Your task to perform on an android device: Search for "bose quietcomfort 35" on newegg, select the first entry, add it to the cart, then select checkout. Image 0: 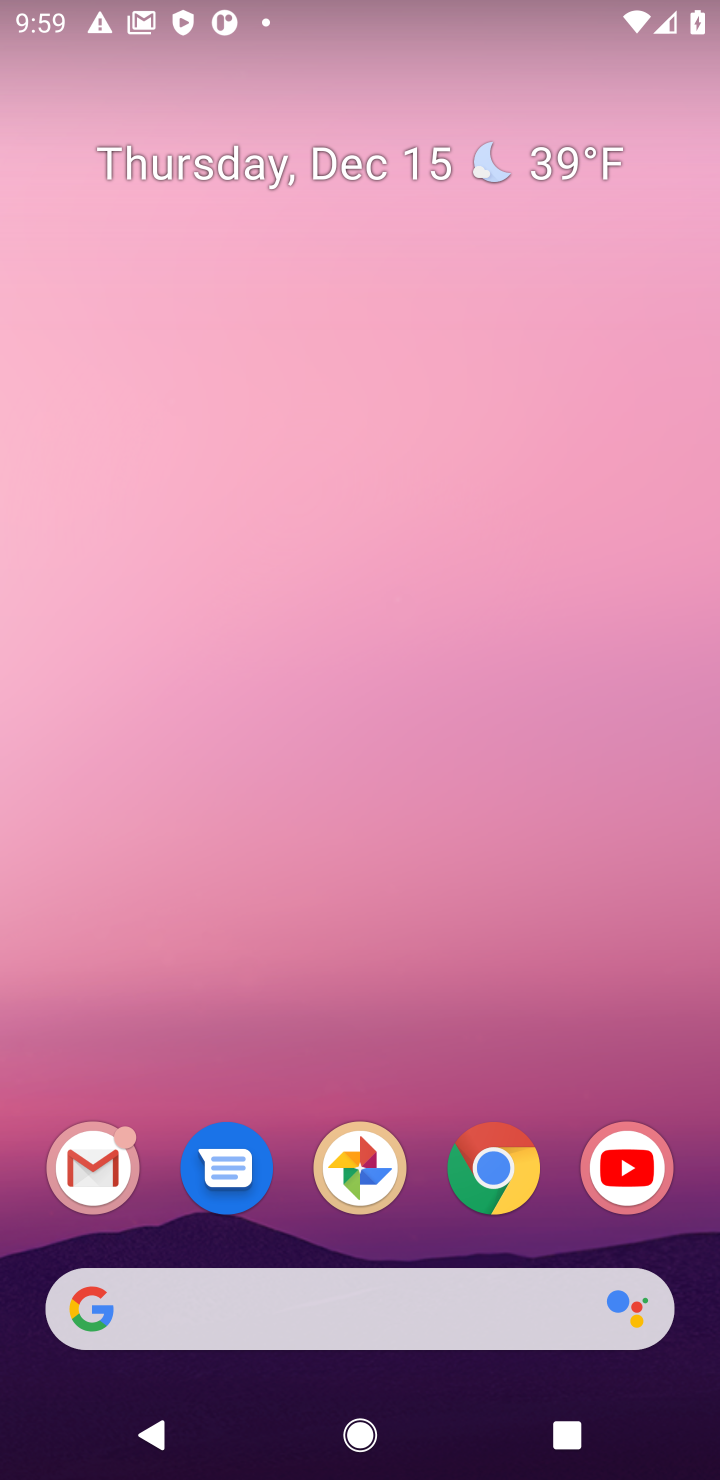
Step 0: click (483, 1160)
Your task to perform on an android device: Search for "bose quietcomfort 35" on newegg, select the first entry, add it to the cart, then select checkout. Image 1: 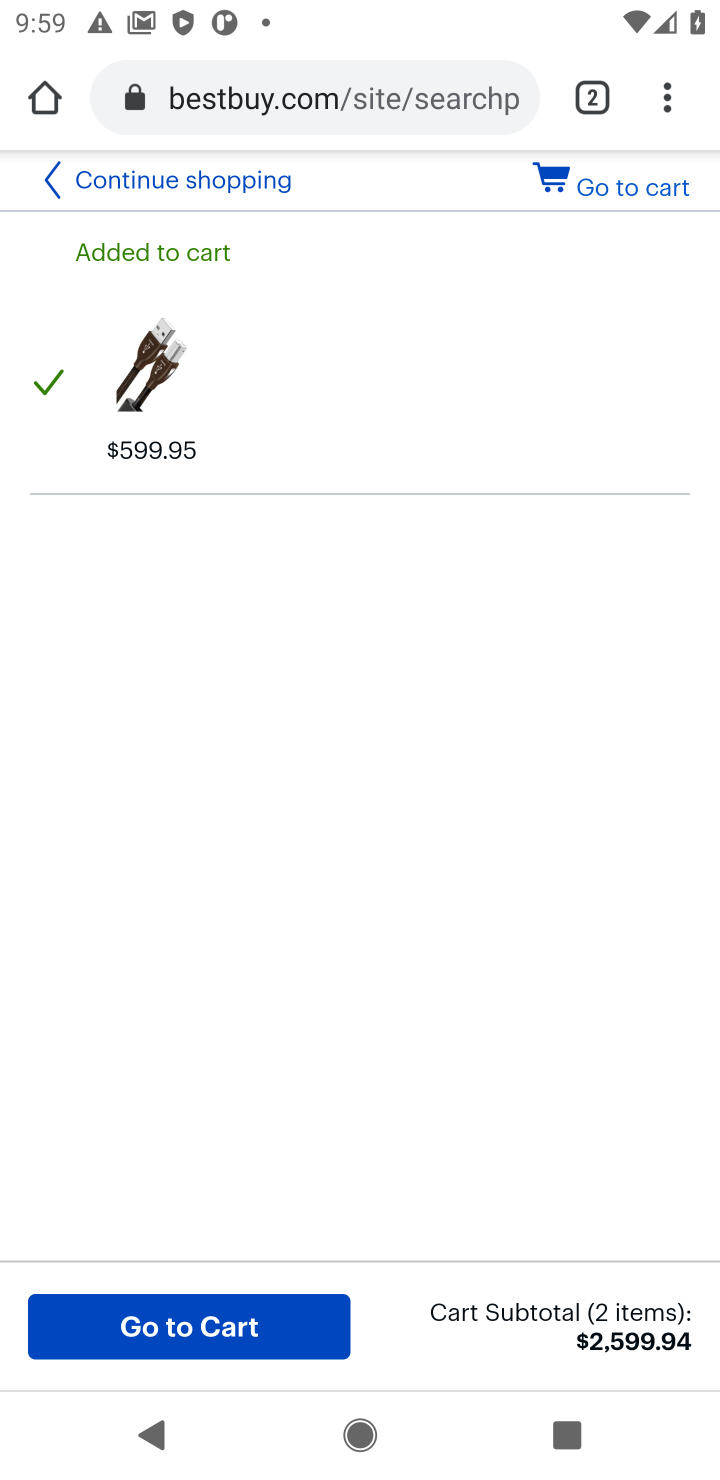
Step 1: click (399, 98)
Your task to perform on an android device: Search for "bose quietcomfort 35" on newegg, select the first entry, add it to the cart, then select checkout. Image 2: 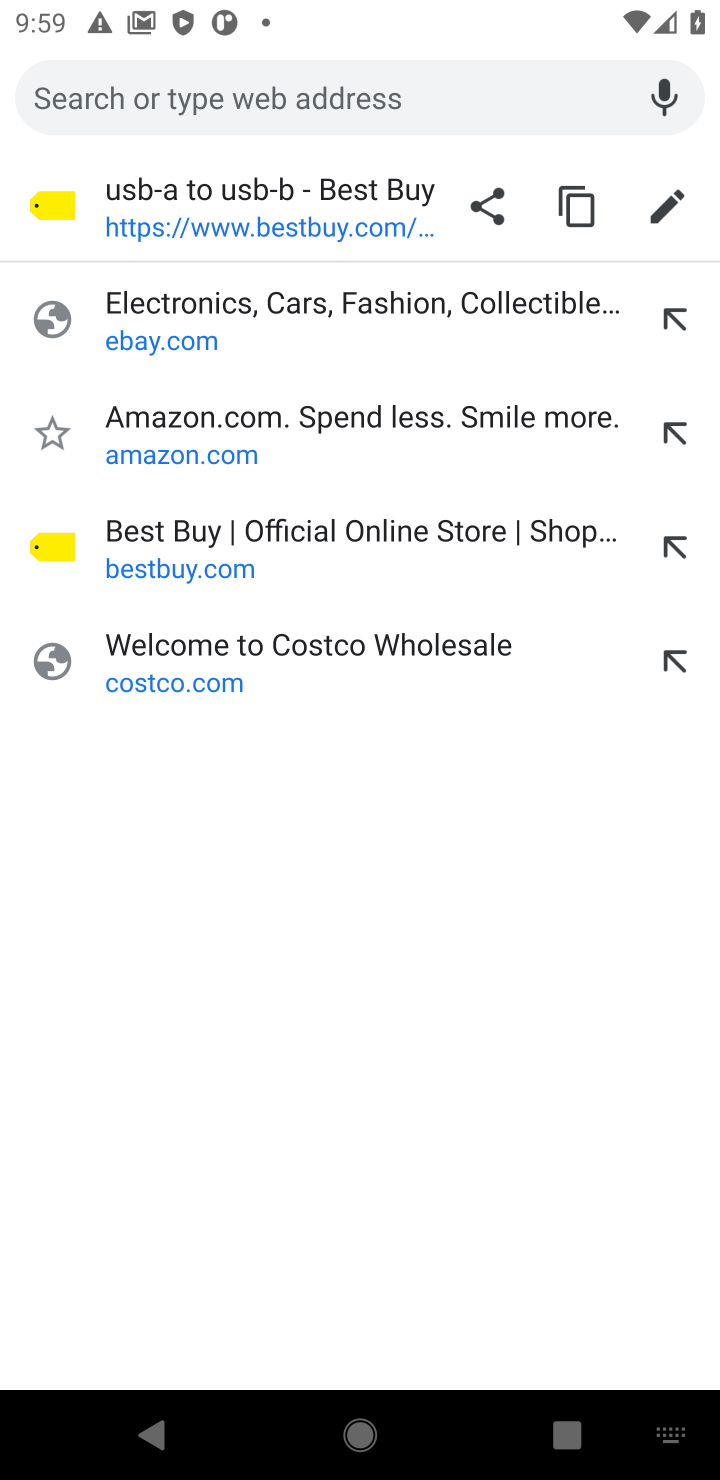
Step 2: type "newegg"
Your task to perform on an android device: Search for "bose quietcomfort 35" on newegg, select the first entry, add it to the cart, then select checkout. Image 3: 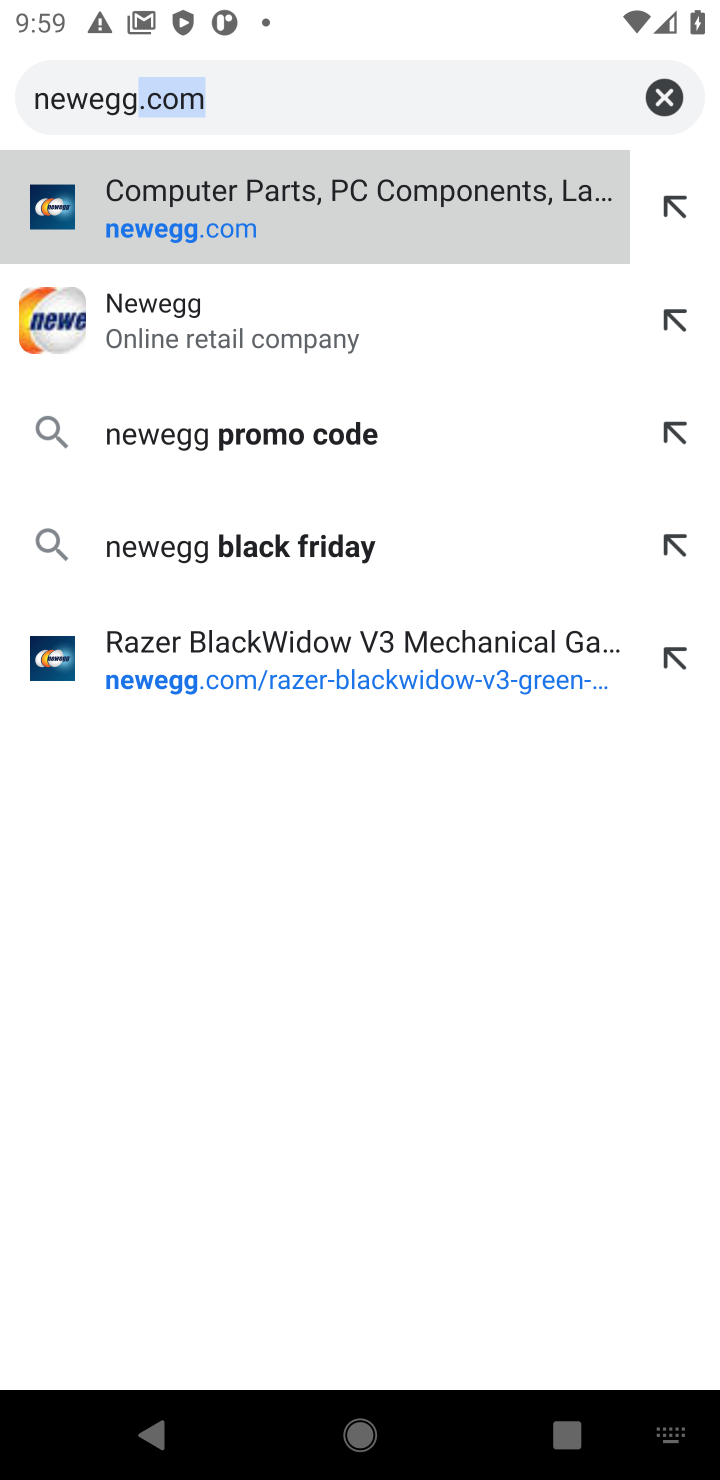
Step 3: click (389, 233)
Your task to perform on an android device: Search for "bose quietcomfort 35" on newegg, select the first entry, add it to the cart, then select checkout. Image 4: 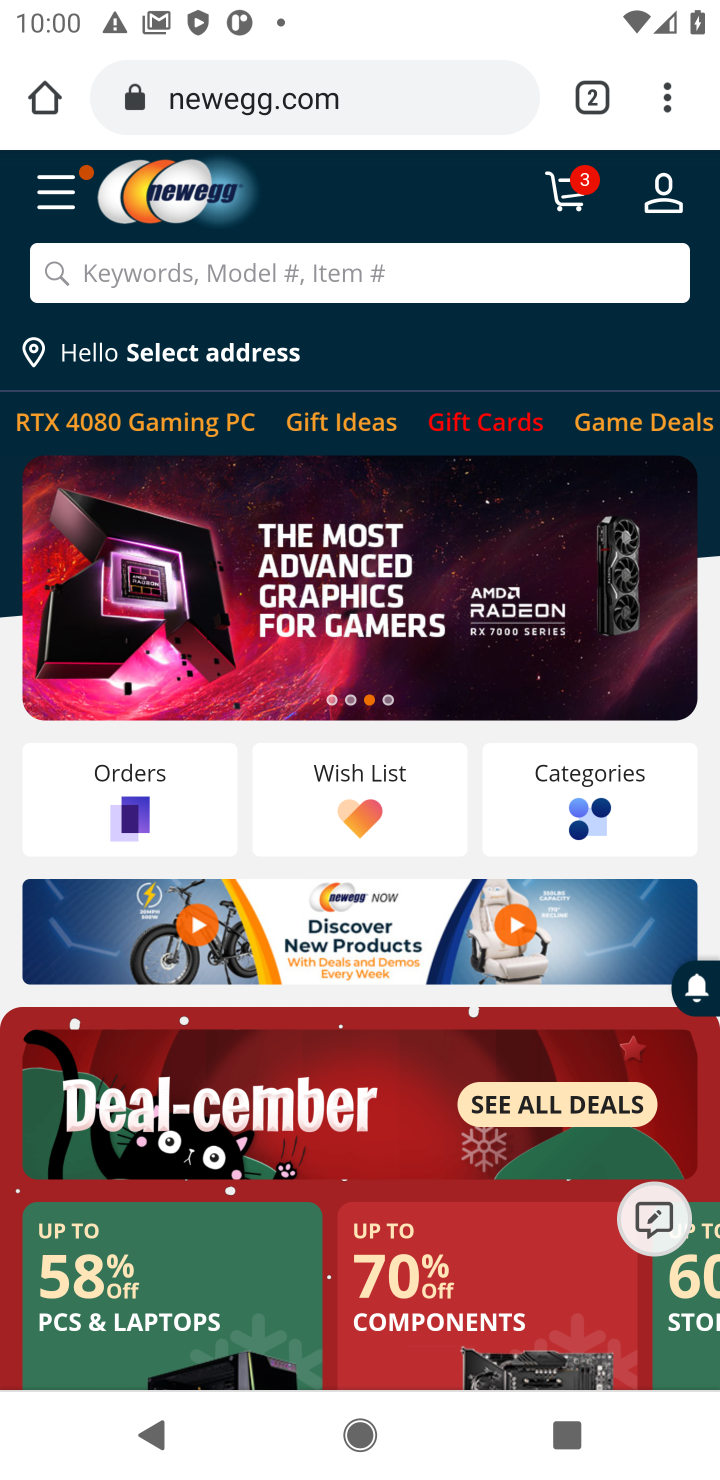
Step 4: click (261, 286)
Your task to perform on an android device: Search for "bose quietcomfort 35" on newegg, select the first entry, add it to the cart, then select checkout. Image 5: 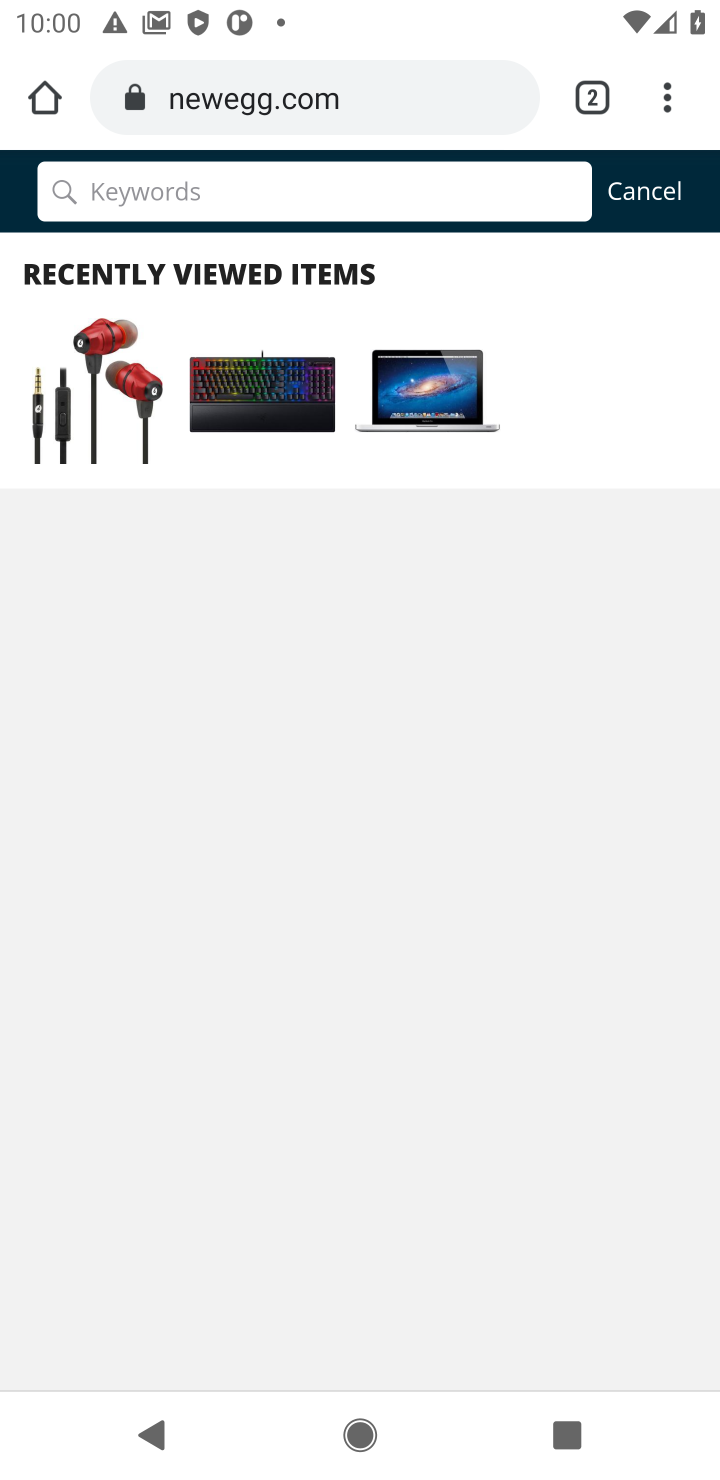
Step 5: type ""
Your task to perform on an android device: Search for "bose quietcomfort 35" on newegg, select the first entry, add it to the cart, then select checkout. Image 6: 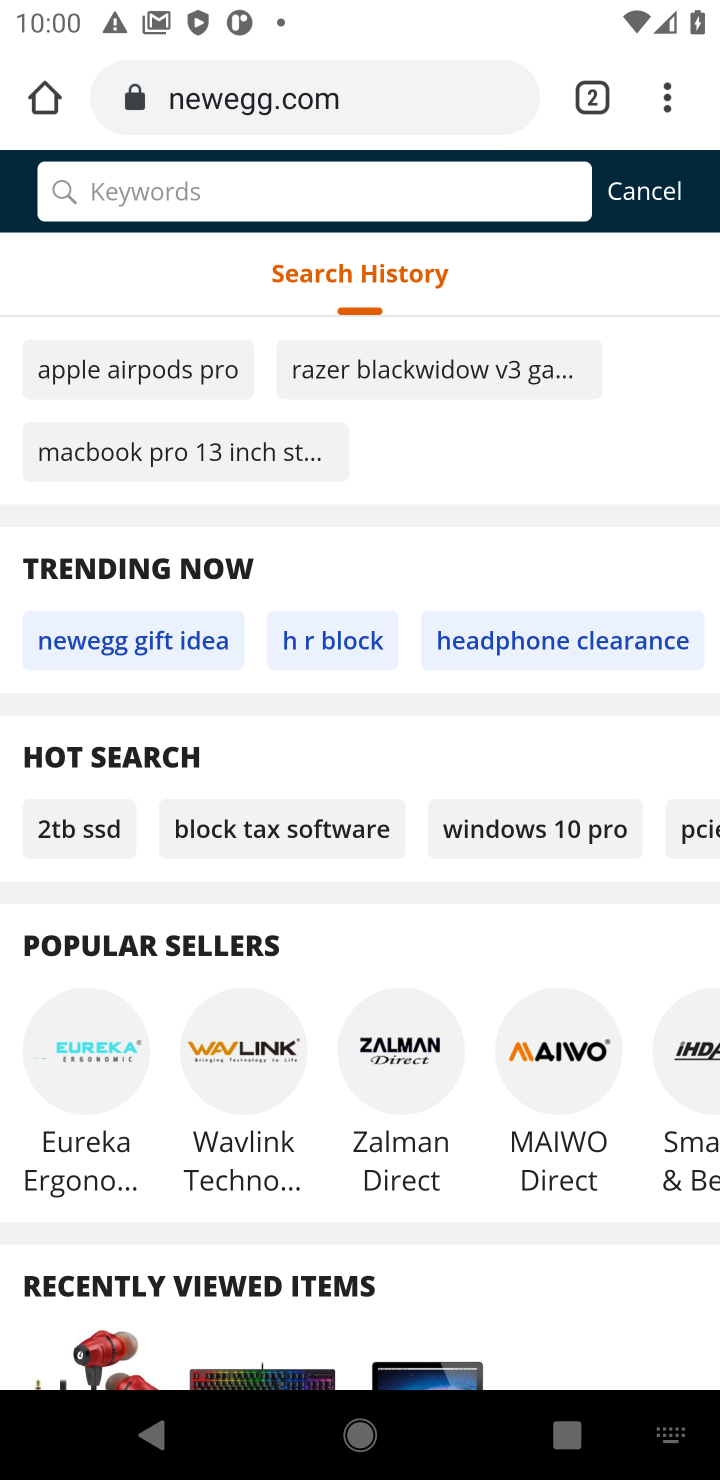
Step 6: type "bose quietcomfort 35"
Your task to perform on an android device: Search for "bose quietcomfort 35" on newegg, select the first entry, add it to the cart, then select checkout. Image 7: 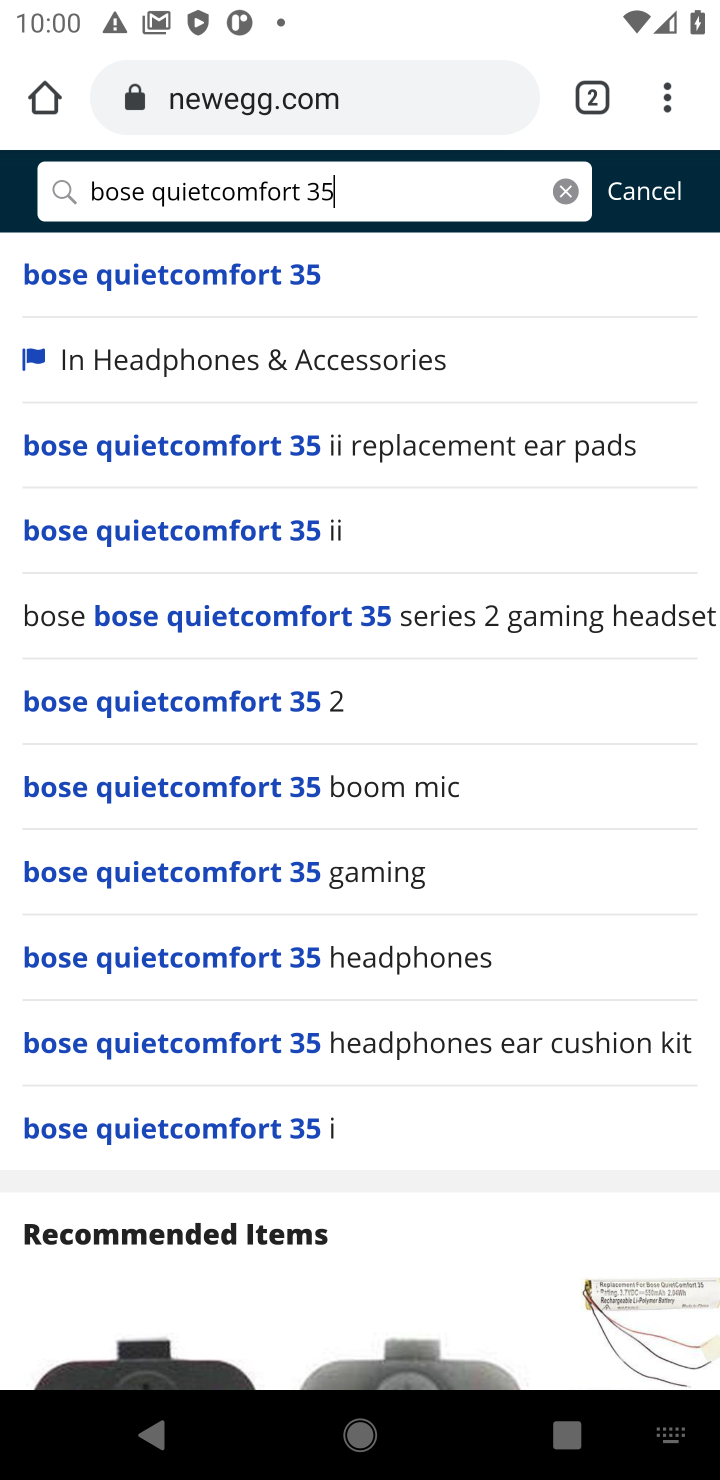
Step 7: click (269, 269)
Your task to perform on an android device: Search for "bose quietcomfort 35" on newegg, select the first entry, add it to the cart, then select checkout. Image 8: 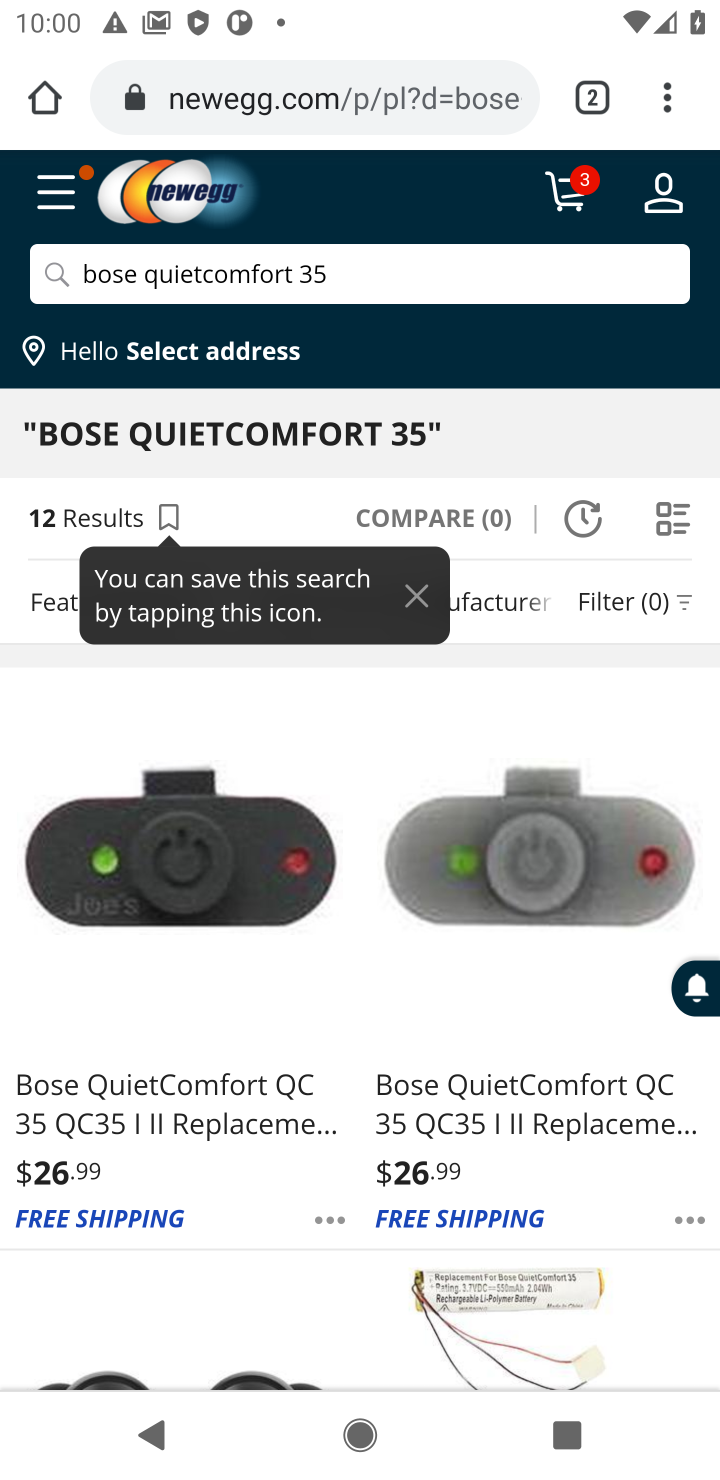
Step 8: click (178, 961)
Your task to perform on an android device: Search for "bose quietcomfort 35" on newegg, select the first entry, add it to the cart, then select checkout. Image 9: 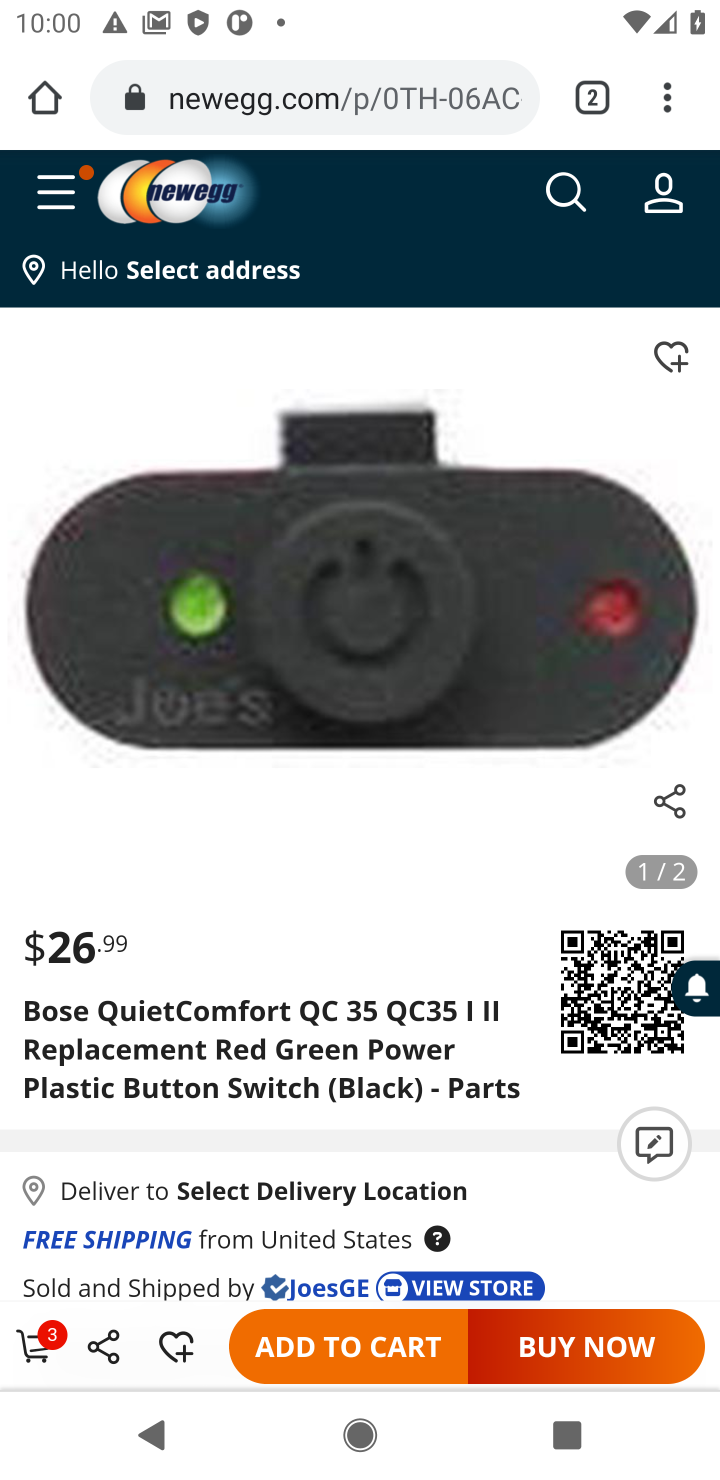
Step 9: click (332, 1350)
Your task to perform on an android device: Search for "bose quietcomfort 35" on newegg, select the first entry, add it to the cart, then select checkout. Image 10: 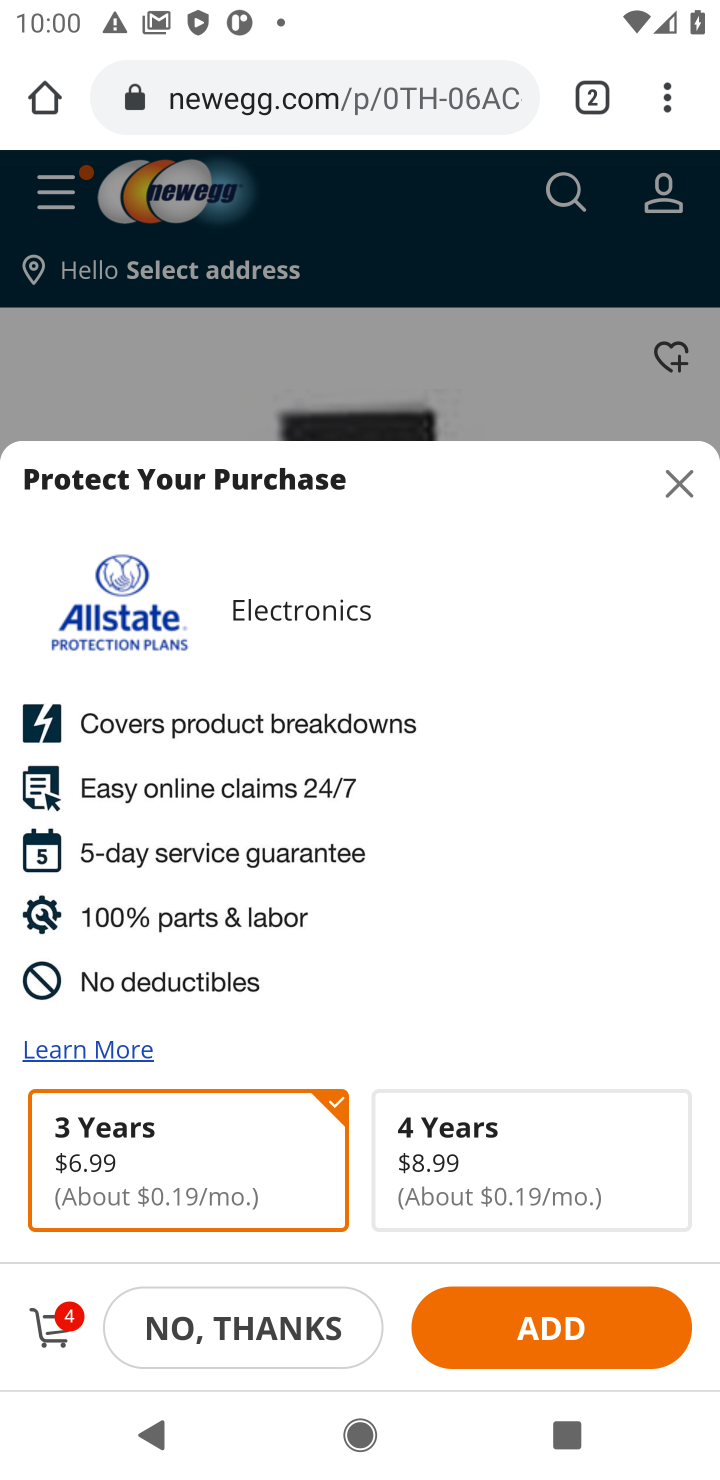
Step 10: click (40, 1332)
Your task to perform on an android device: Search for "bose quietcomfort 35" on newegg, select the first entry, add it to the cart, then select checkout. Image 11: 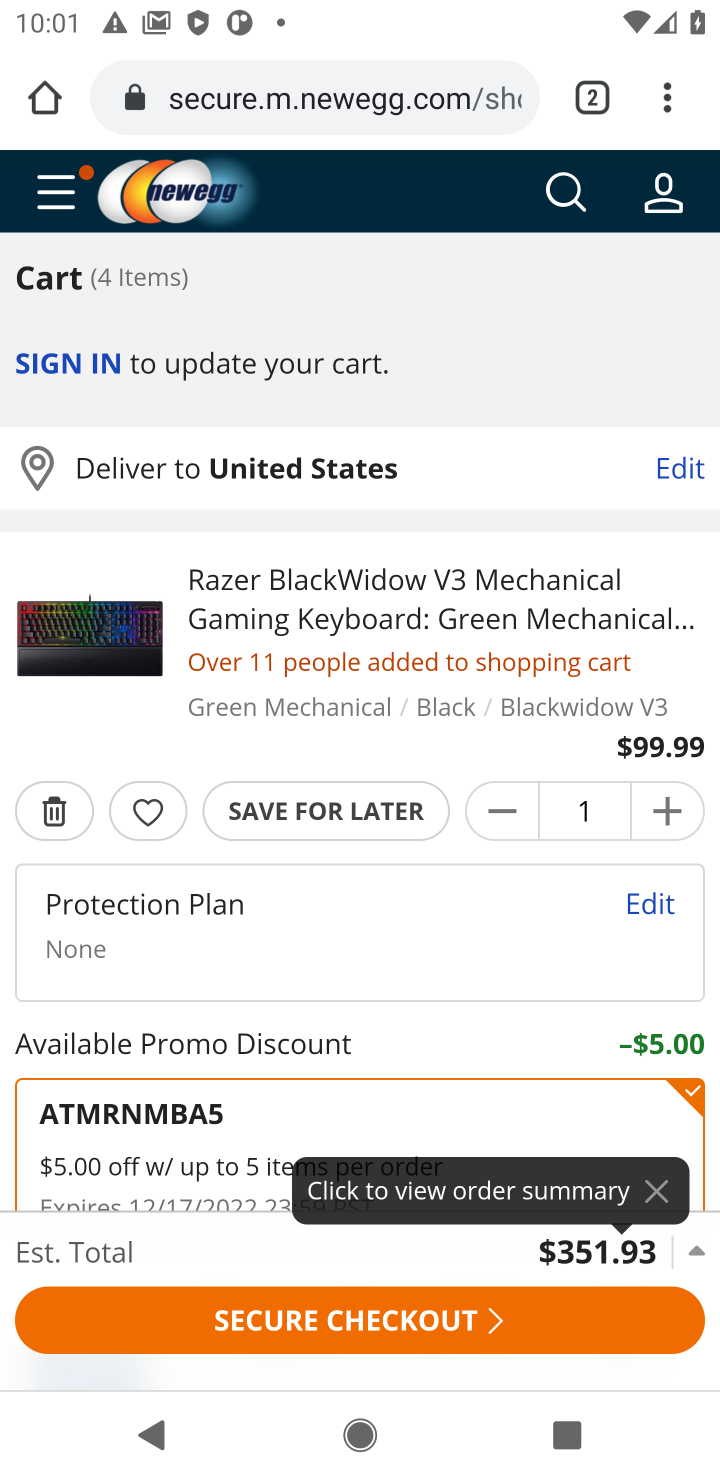
Step 11: click (340, 1331)
Your task to perform on an android device: Search for "bose quietcomfort 35" on newegg, select the first entry, add it to the cart, then select checkout. Image 12: 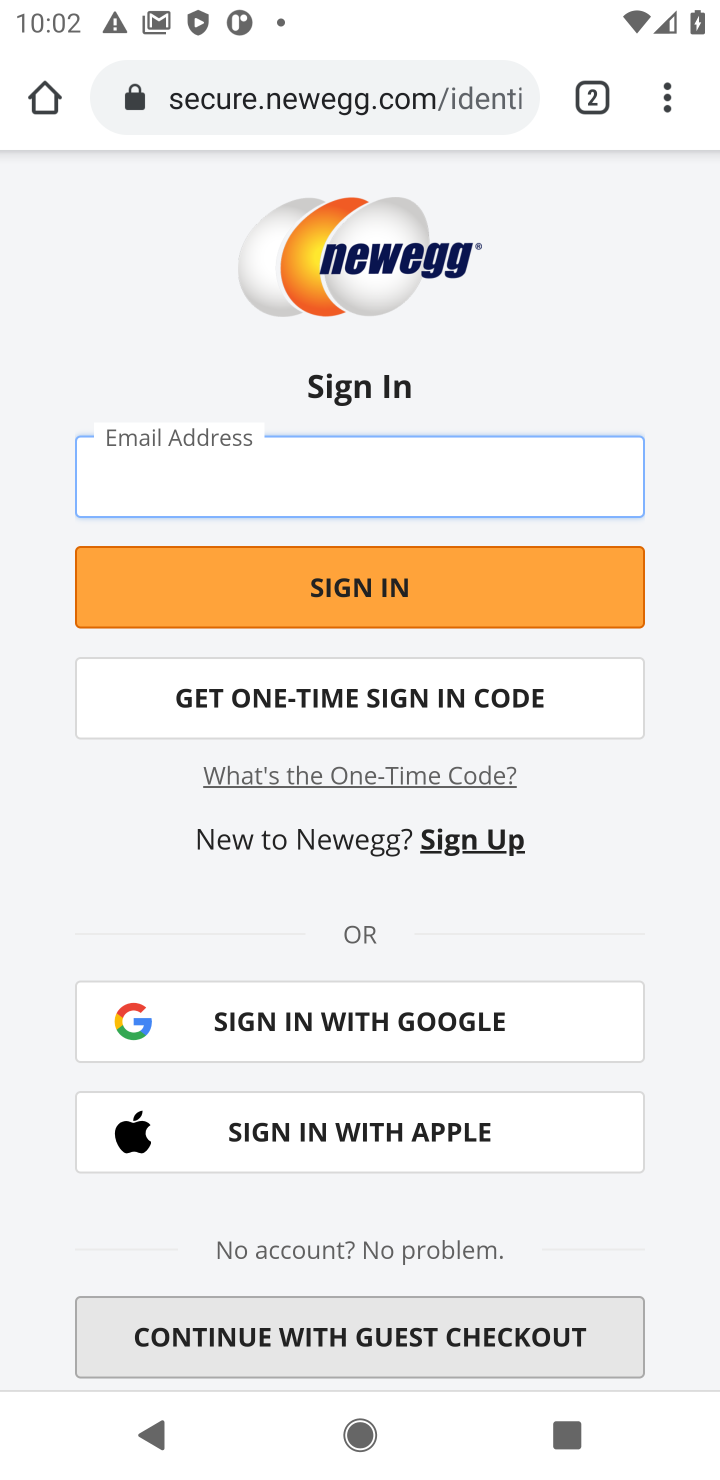
Step 12: task complete